Your task to perform on an android device: turn off priority inbox in the gmail app Image 0: 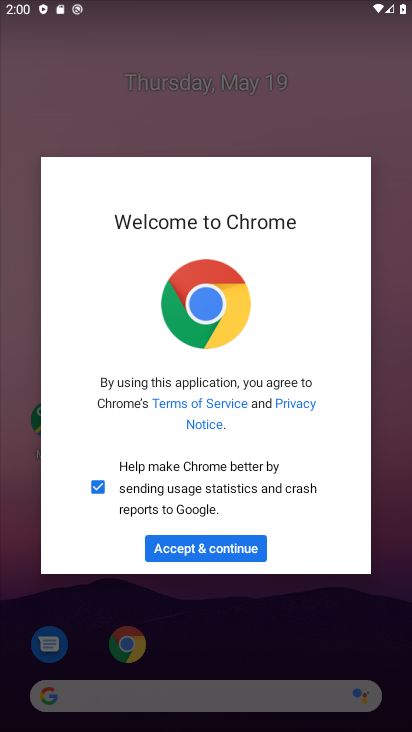
Step 0: press home button
Your task to perform on an android device: turn off priority inbox in the gmail app Image 1: 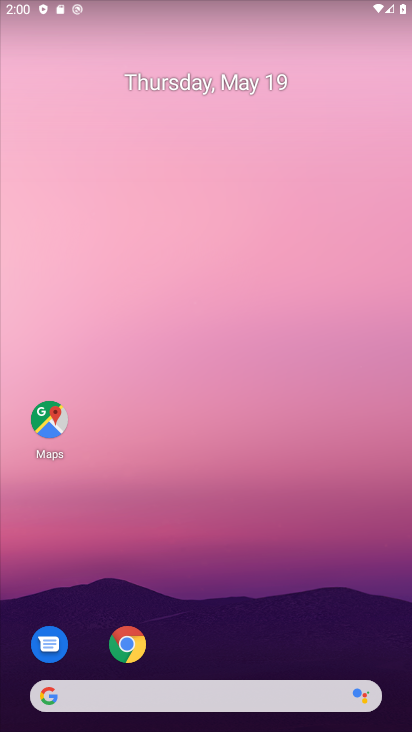
Step 1: drag from (212, 506) to (222, 160)
Your task to perform on an android device: turn off priority inbox in the gmail app Image 2: 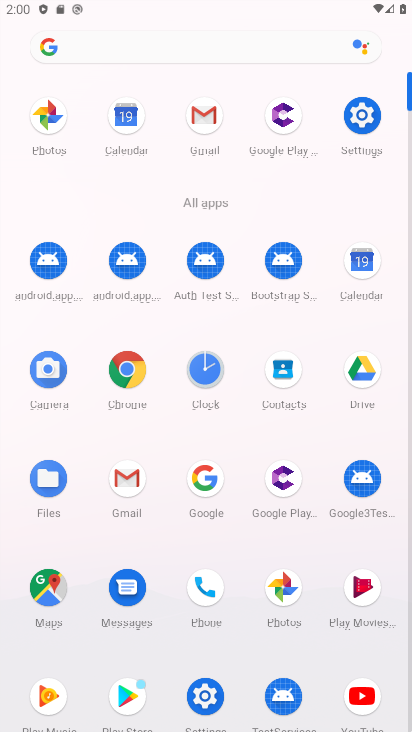
Step 2: click (205, 115)
Your task to perform on an android device: turn off priority inbox in the gmail app Image 3: 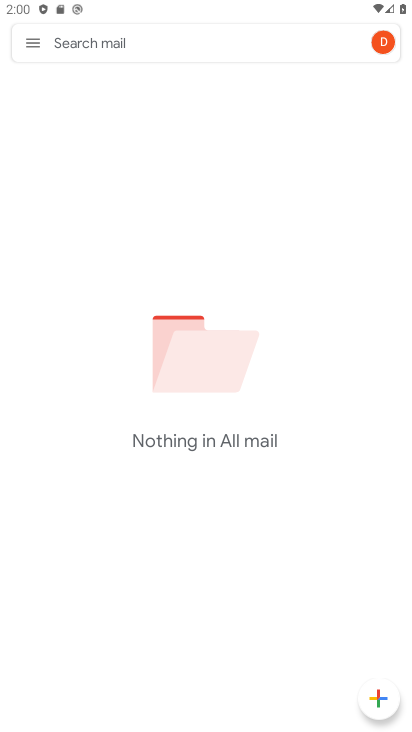
Step 3: click (35, 35)
Your task to perform on an android device: turn off priority inbox in the gmail app Image 4: 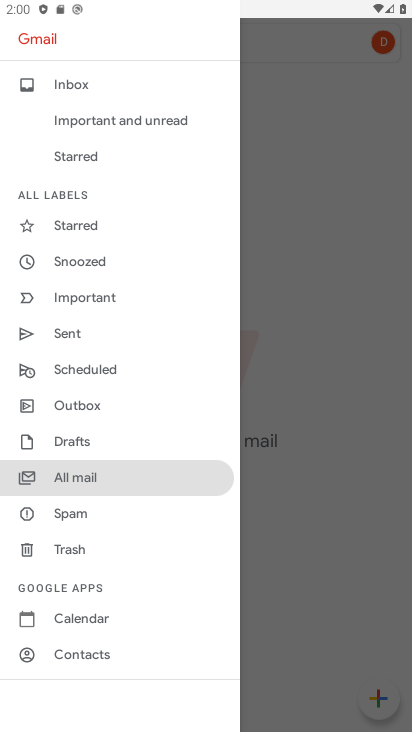
Step 4: drag from (79, 566) to (119, 270)
Your task to perform on an android device: turn off priority inbox in the gmail app Image 5: 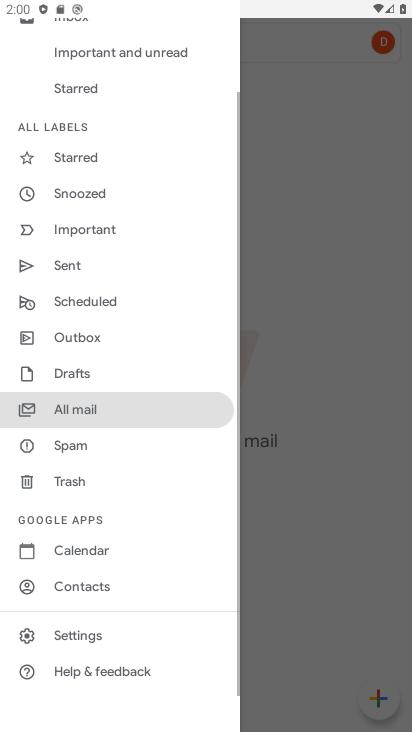
Step 5: click (85, 626)
Your task to perform on an android device: turn off priority inbox in the gmail app Image 6: 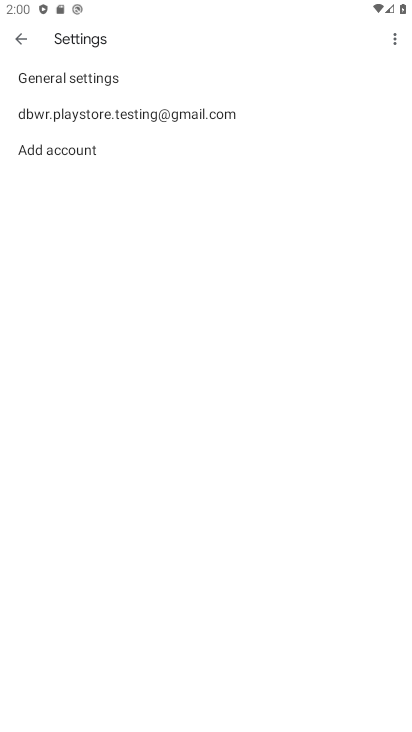
Step 6: click (97, 117)
Your task to perform on an android device: turn off priority inbox in the gmail app Image 7: 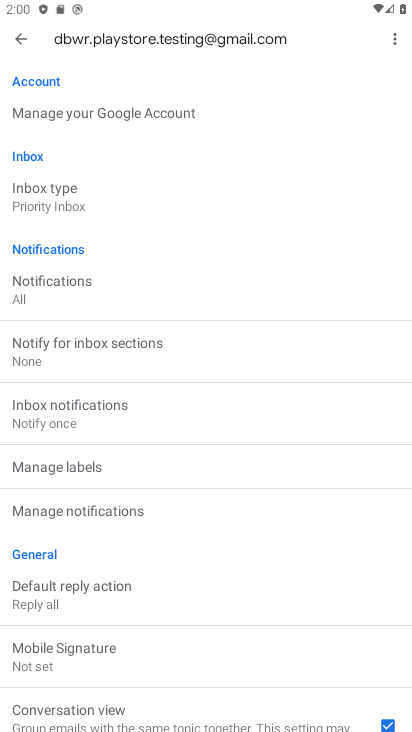
Step 7: click (58, 195)
Your task to perform on an android device: turn off priority inbox in the gmail app Image 8: 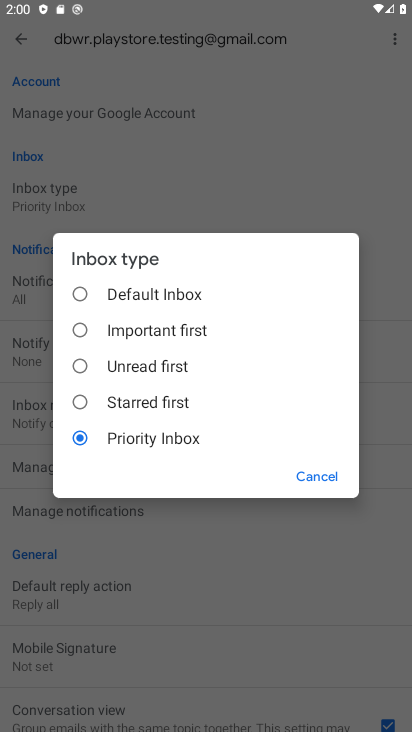
Step 8: click (144, 302)
Your task to perform on an android device: turn off priority inbox in the gmail app Image 9: 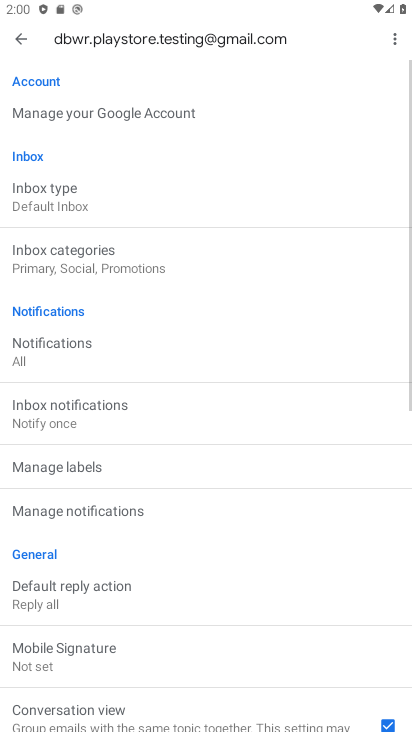
Step 9: task complete